Your task to perform on an android device: Go to Android settings Image 0: 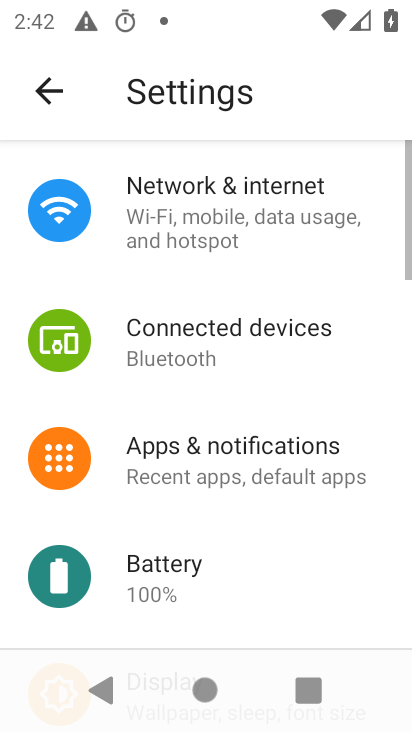
Step 0: click (31, 98)
Your task to perform on an android device: Go to Android settings Image 1: 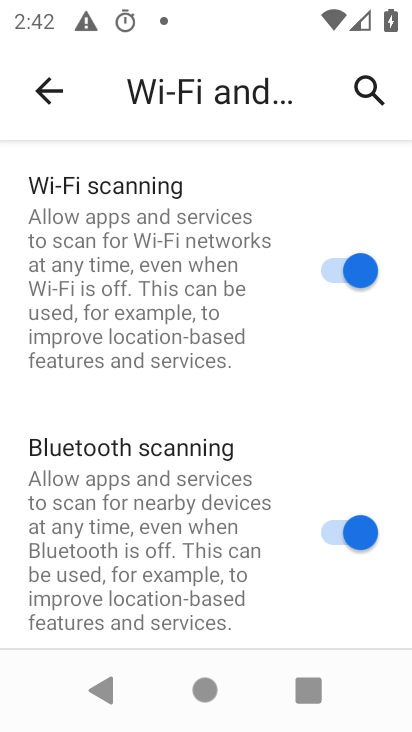
Step 1: click (62, 86)
Your task to perform on an android device: Go to Android settings Image 2: 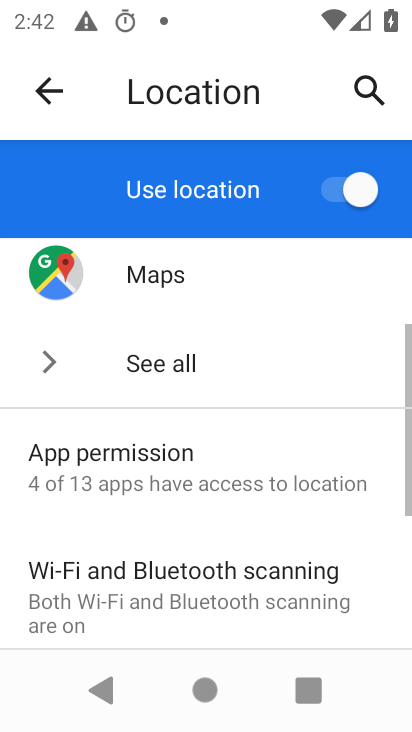
Step 2: drag from (207, 422) to (207, 188)
Your task to perform on an android device: Go to Android settings Image 3: 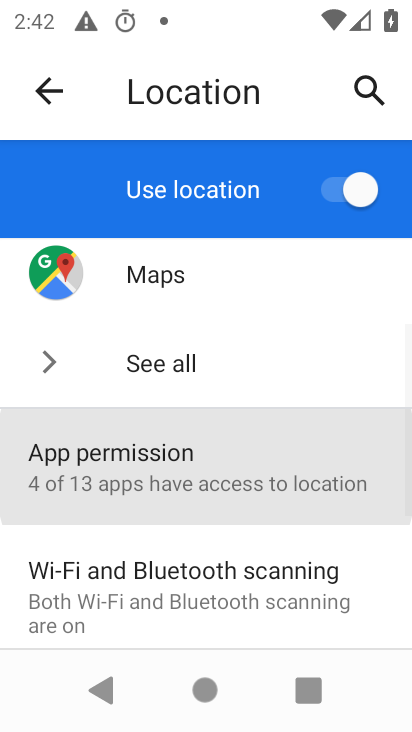
Step 3: drag from (243, 402) to (243, 193)
Your task to perform on an android device: Go to Android settings Image 4: 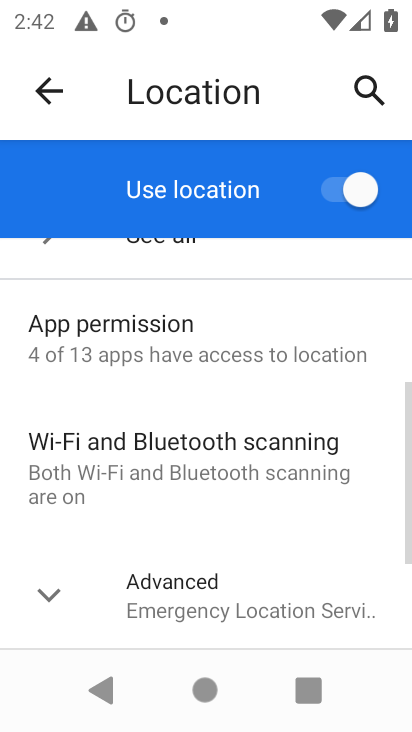
Step 4: click (62, 80)
Your task to perform on an android device: Go to Android settings Image 5: 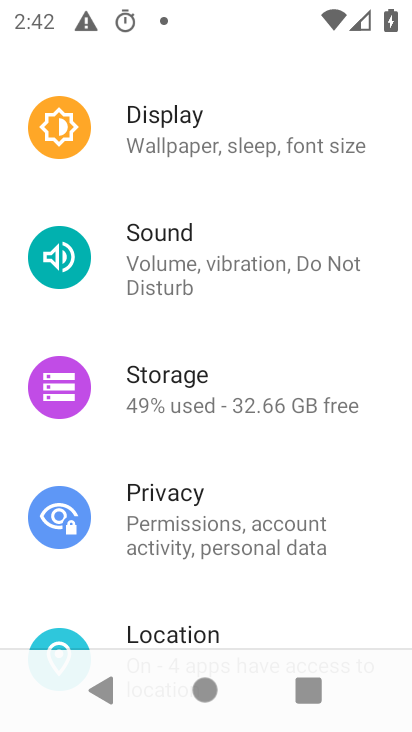
Step 5: drag from (221, 529) to (202, 320)
Your task to perform on an android device: Go to Android settings Image 6: 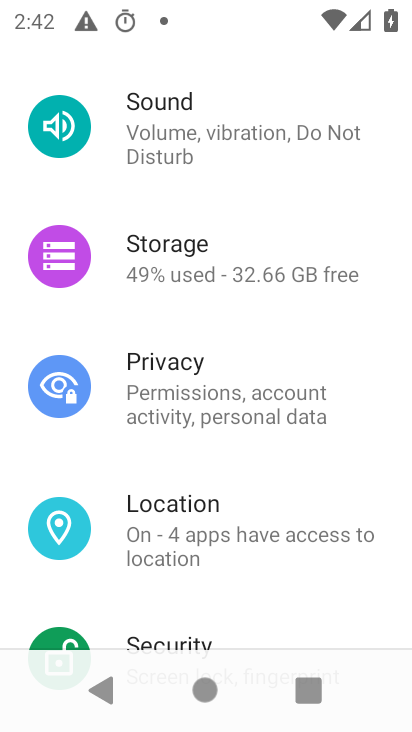
Step 6: click (206, 288)
Your task to perform on an android device: Go to Android settings Image 7: 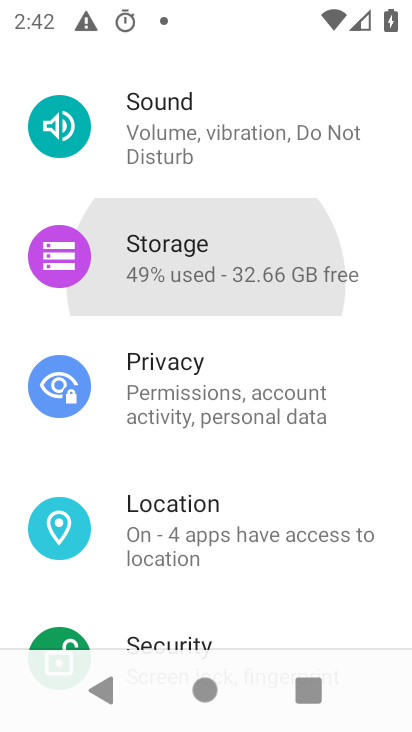
Step 7: drag from (219, 321) to (214, 280)
Your task to perform on an android device: Go to Android settings Image 8: 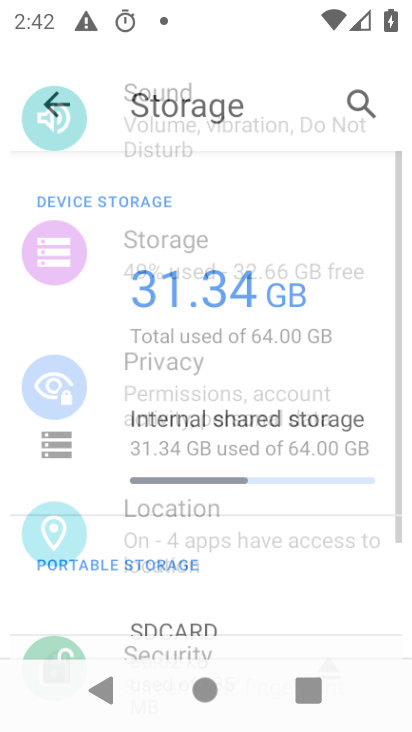
Step 8: drag from (219, 443) to (198, 214)
Your task to perform on an android device: Go to Android settings Image 9: 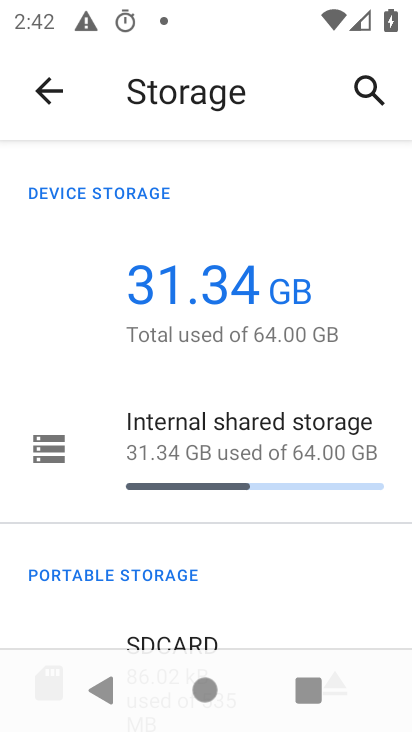
Step 9: click (49, 90)
Your task to perform on an android device: Go to Android settings Image 10: 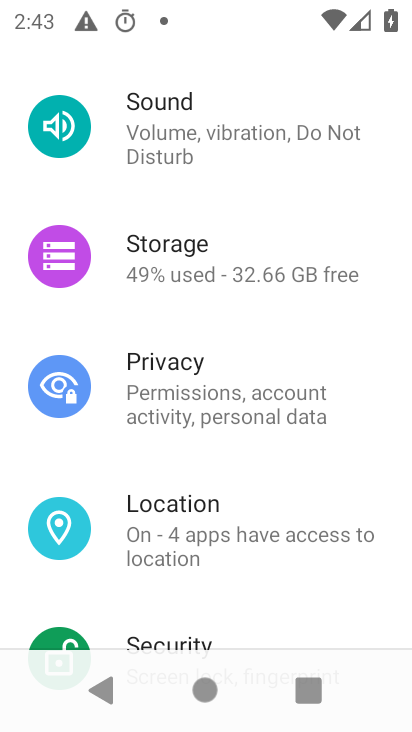
Step 10: drag from (290, 594) to (226, 165)
Your task to perform on an android device: Go to Android settings Image 11: 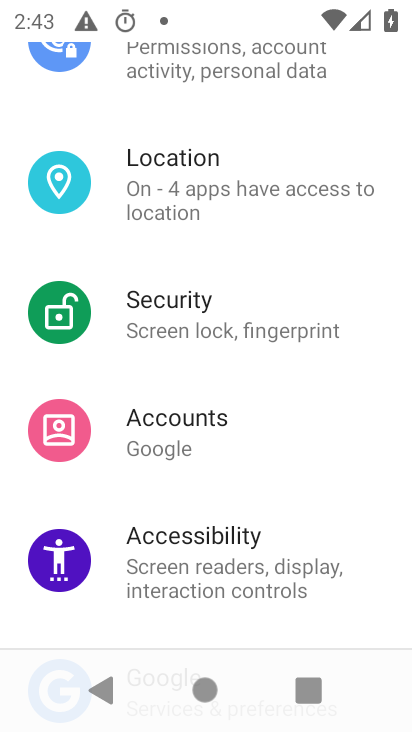
Step 11: drag from (258, 430) to (258, 166)
Your task to perform on an android device: Go to Android settings Image 12: 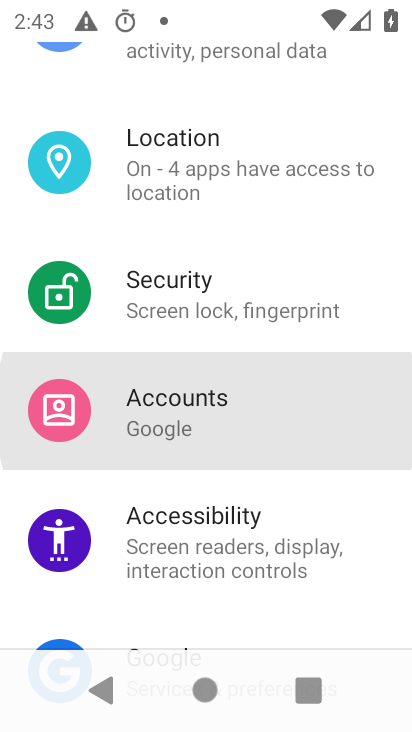
Step 12: drag from (280, 489) to (240, 192)
Your task to perform on an android device: Go to Android settings Image 13: 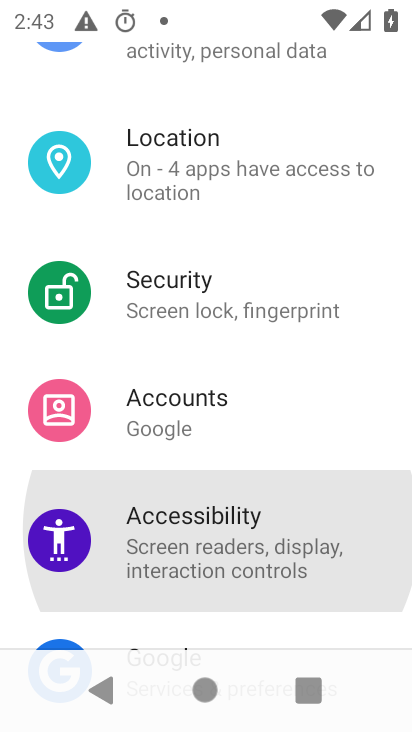
Step 13: drag from (236, 426) to (198, 147)
Your task to perform on an android device: Go to Android settings Image 14: 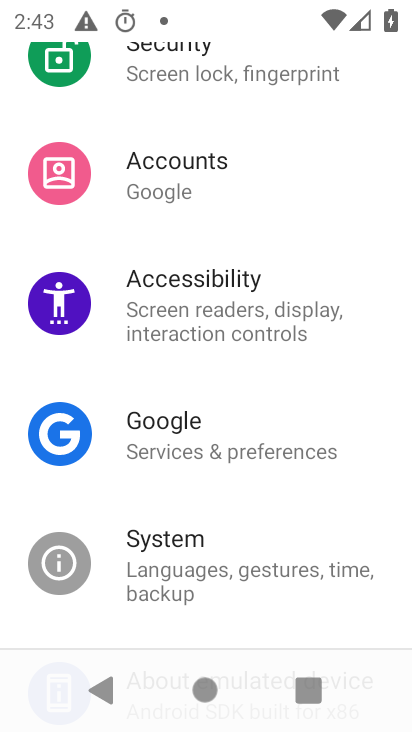
Step 14: click (219, 133)
Your task to perform on an android device: Go to Android settings Image 15: 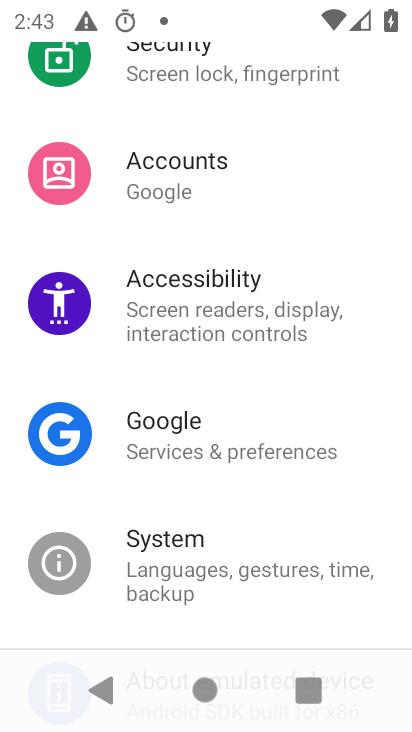
Step 15: drag from (243, 419) to (243, 97)
Your task to perform on an android device: Go to Android settings Image 16: 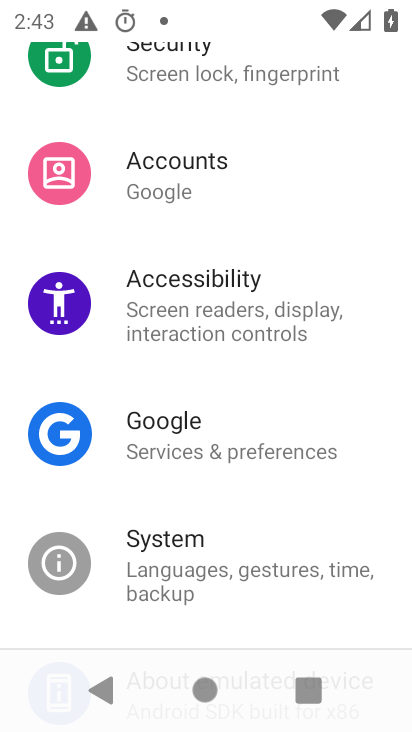
Step 16: drag from (263, 461) to (210, 156)
Your task to perform on an android device: Go to Android settings Image 17: 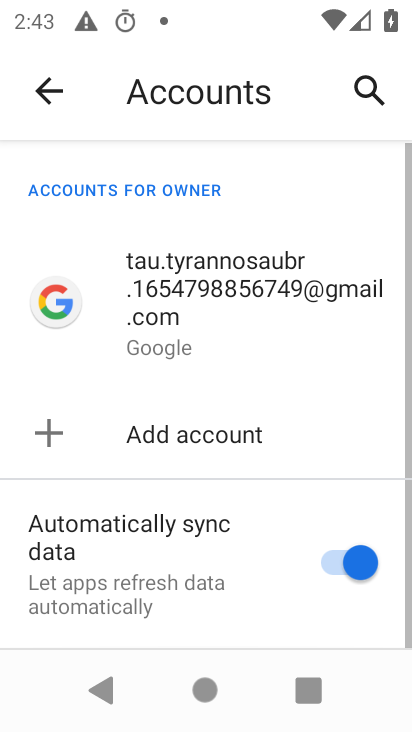
Step 17: click (232, 174)
Your task to perform on an android device: Go to Android settings Image 18: 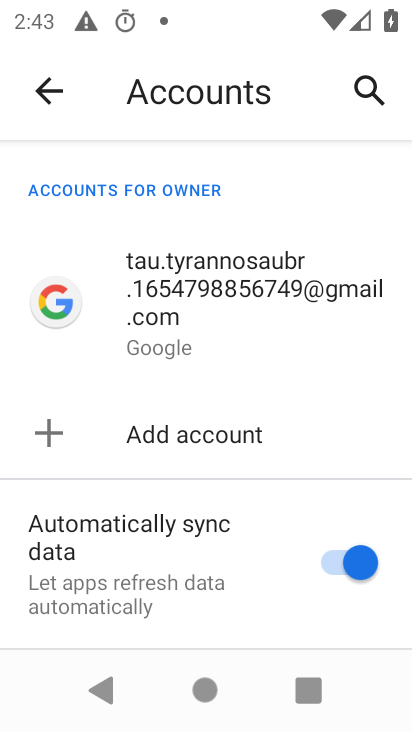
Step 18: task complete